Your task to perform on an android device: change the clock display to digital Image 0: 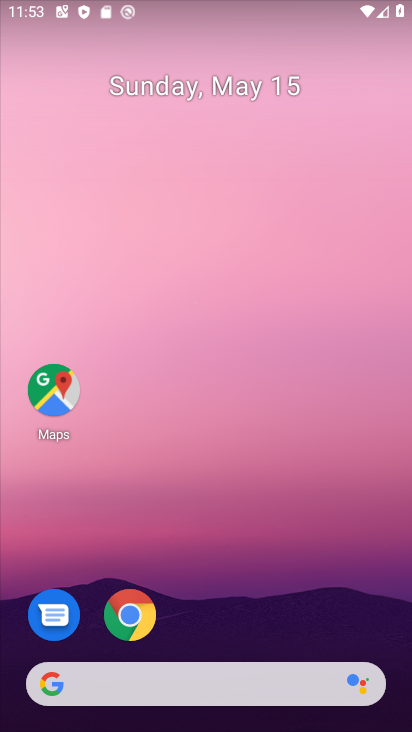
Step 0: press home button
Your task to perform on an android device: change the clock display to digital Image 1: 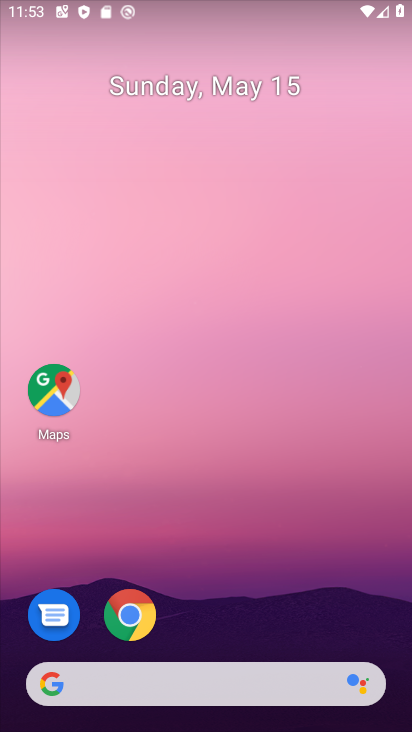
Step 1: drag from (357, 616) to (325, 222)
Your task to perform on an android device: change the clock display to digital Image 2: 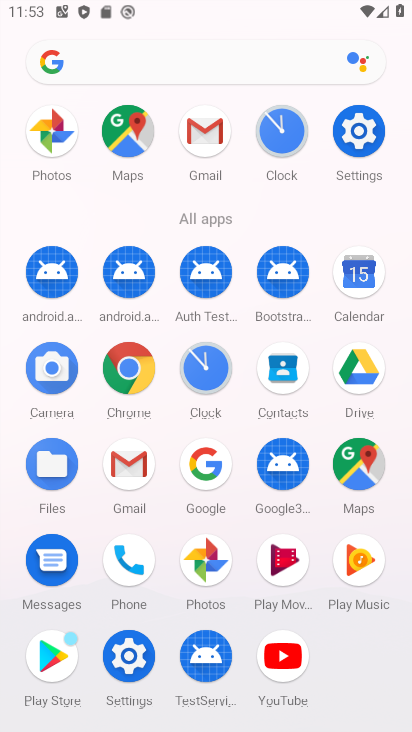
Step 2: click (204, 365)
Your task to perform on an android device: change the clock display to digital Image 3: 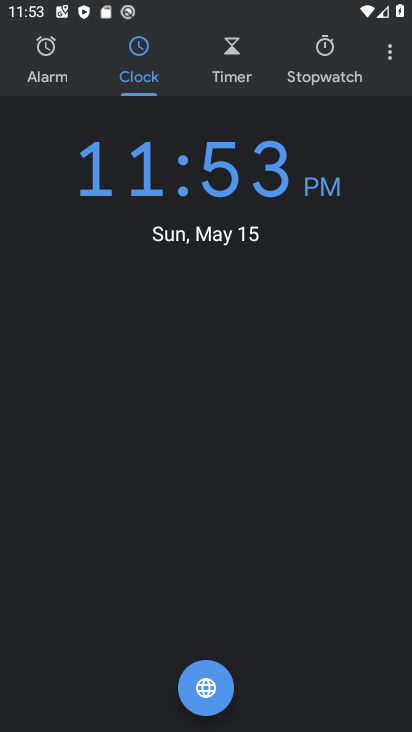
Step 3: click (189, 589)
Your task to perform on an android device: change the clock display to digital Image 4: 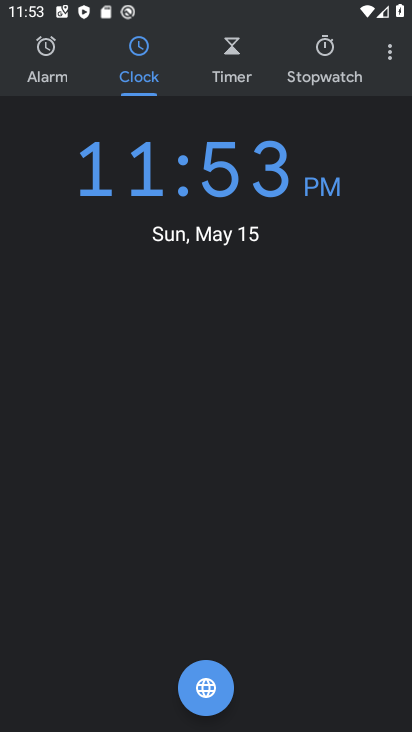
Step 4: click (390, 55)
Your task to perform on an android device: change the clock display to digital Image 5: 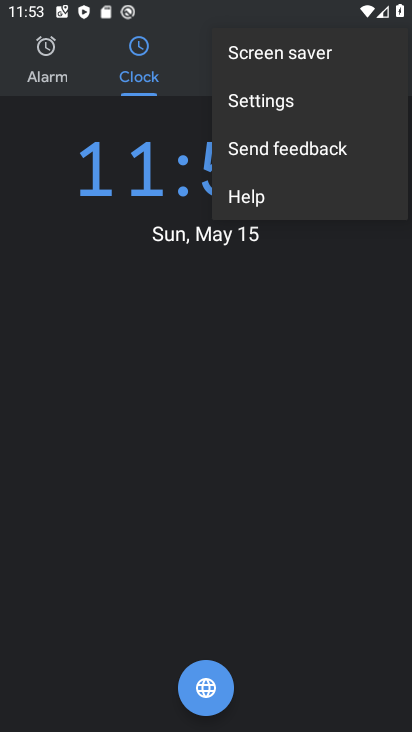
Step 5: click (291, 110)
Your task to perform on an android device: change the clock display to digital Image 6: 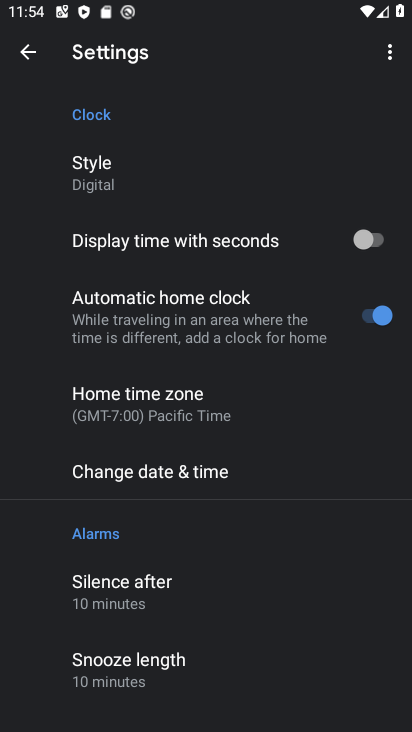
Step 6: task complete